Your task to perform on an android device: uninstall "Life360: Find Family & Friends" Image 0: 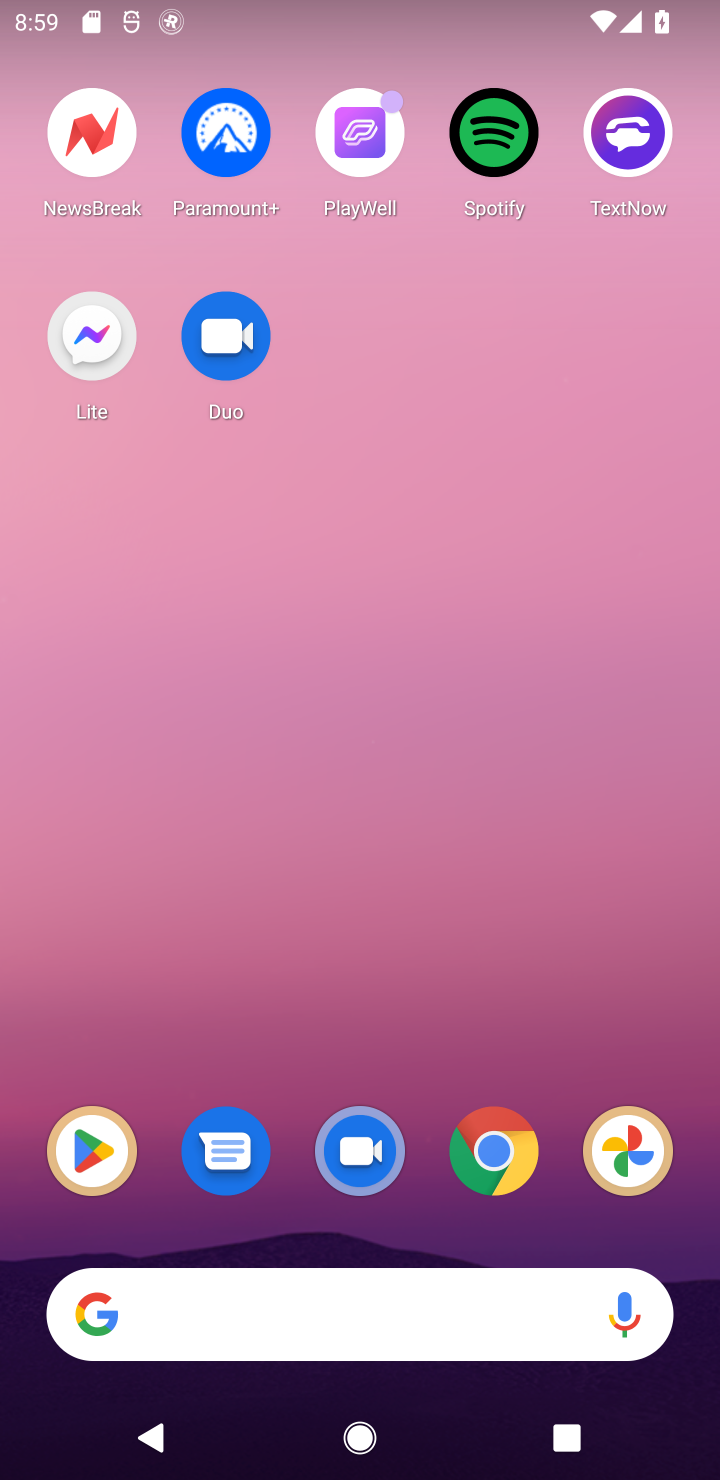
Step 0: click (88, 1157)
Your task to perform on an android device: uninstall "Life360: Find Family & Friends" Image 1: 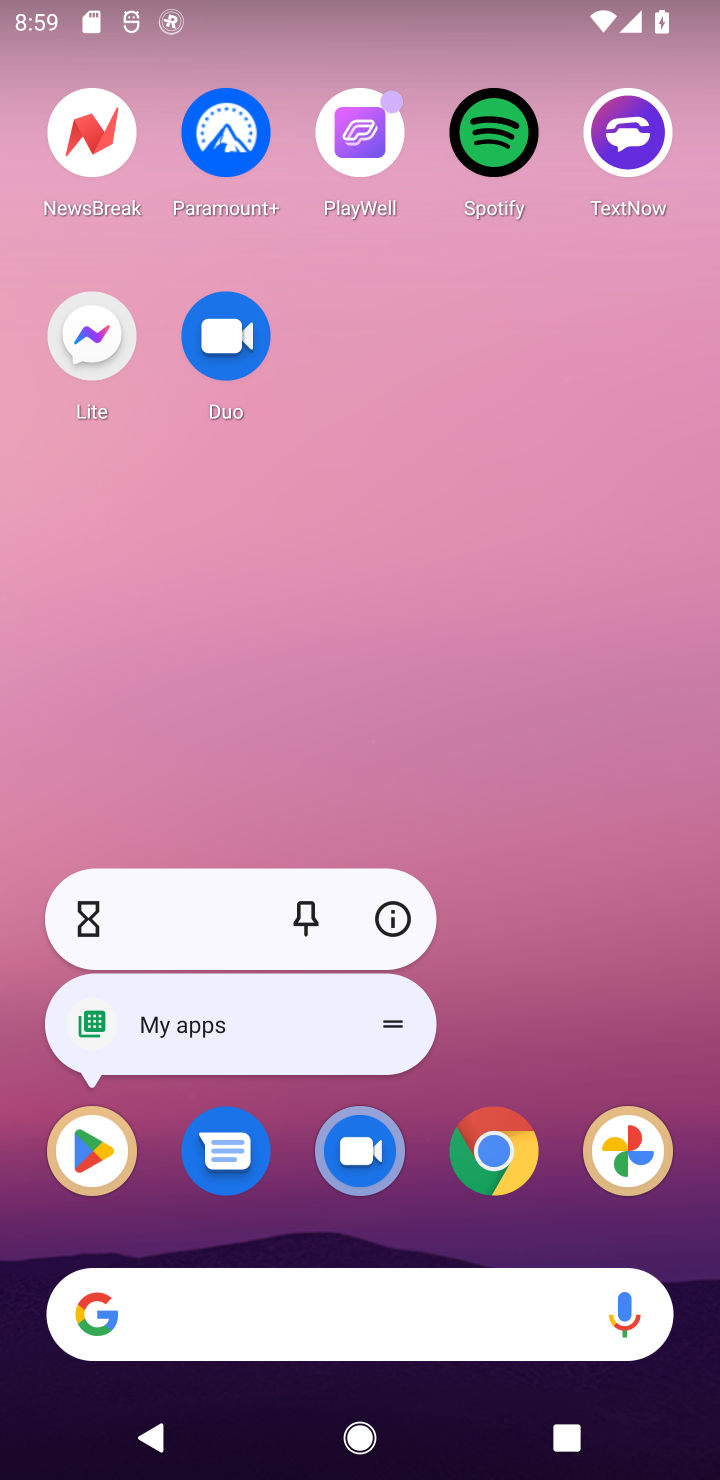
Step 1: click (97, 1172)
Your task to perform on an android device: uninstall "Life360: Find Family & Friends" Image 2: 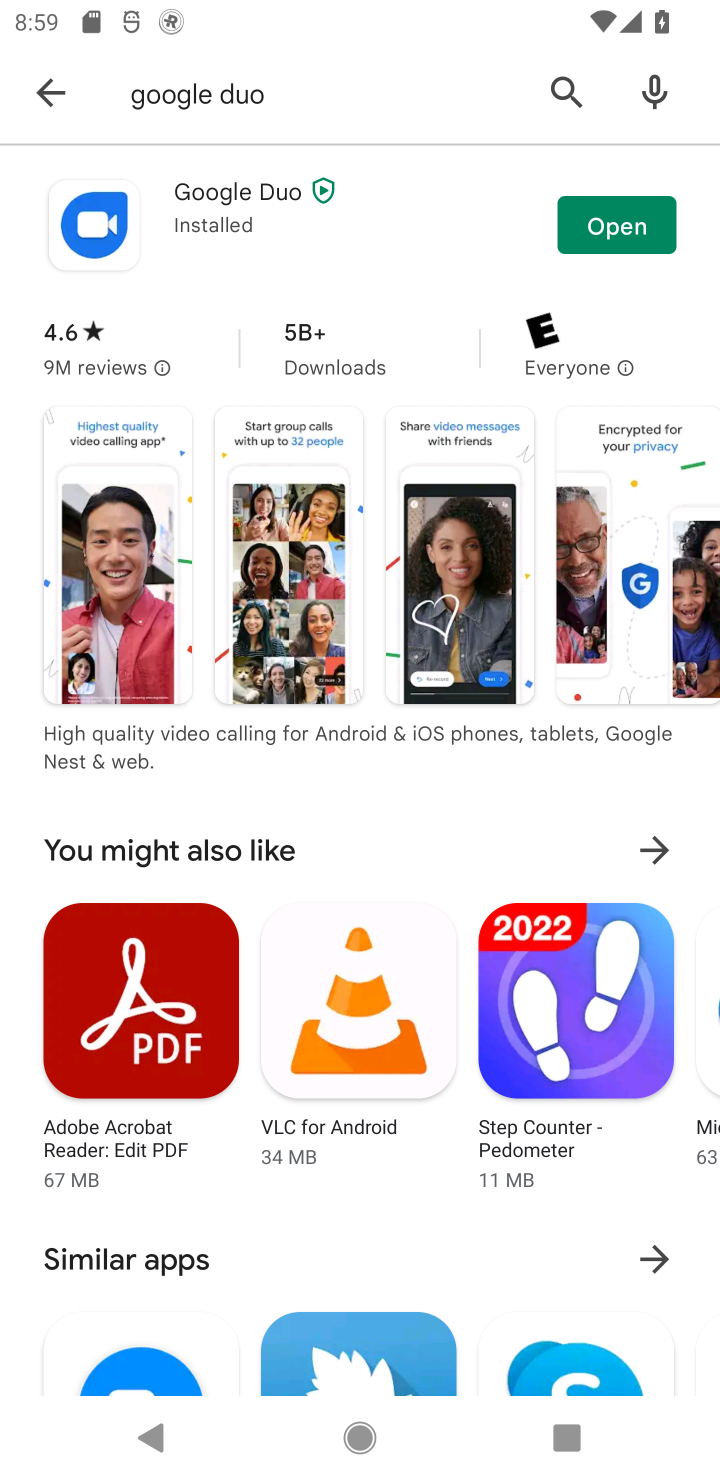
Step 2: click (561, 102)
Your task to perform on an android device: uninstall "Life360: Find Family & Friends" Image 3: 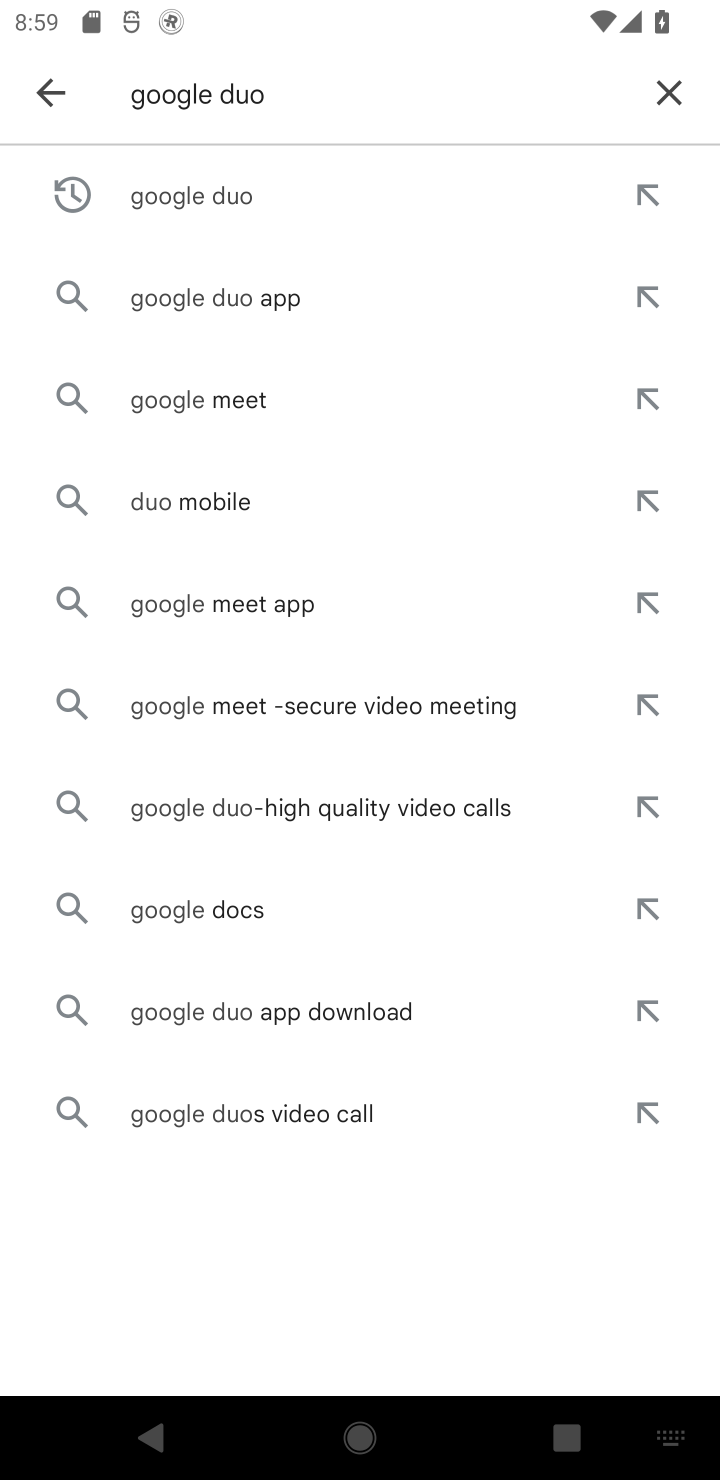
Step 3: click (648, 82)
Your task to perform on an android device: uninstall "Life360: Find Family & Friends" Image 4: 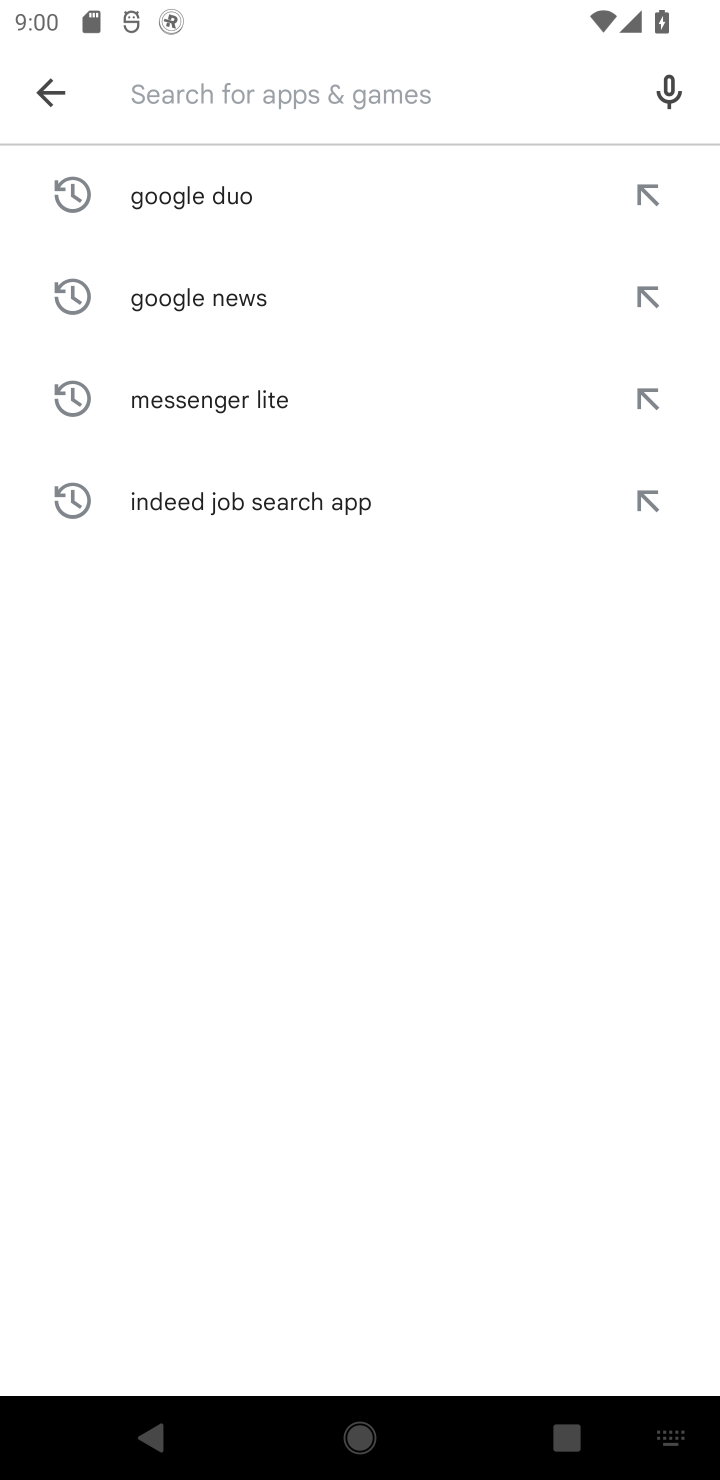
Step 4: type "Life360: Find Family & Friends"
Your task to perform on an android device: uninstall "Life360: Find Family & Friends" Image 5: 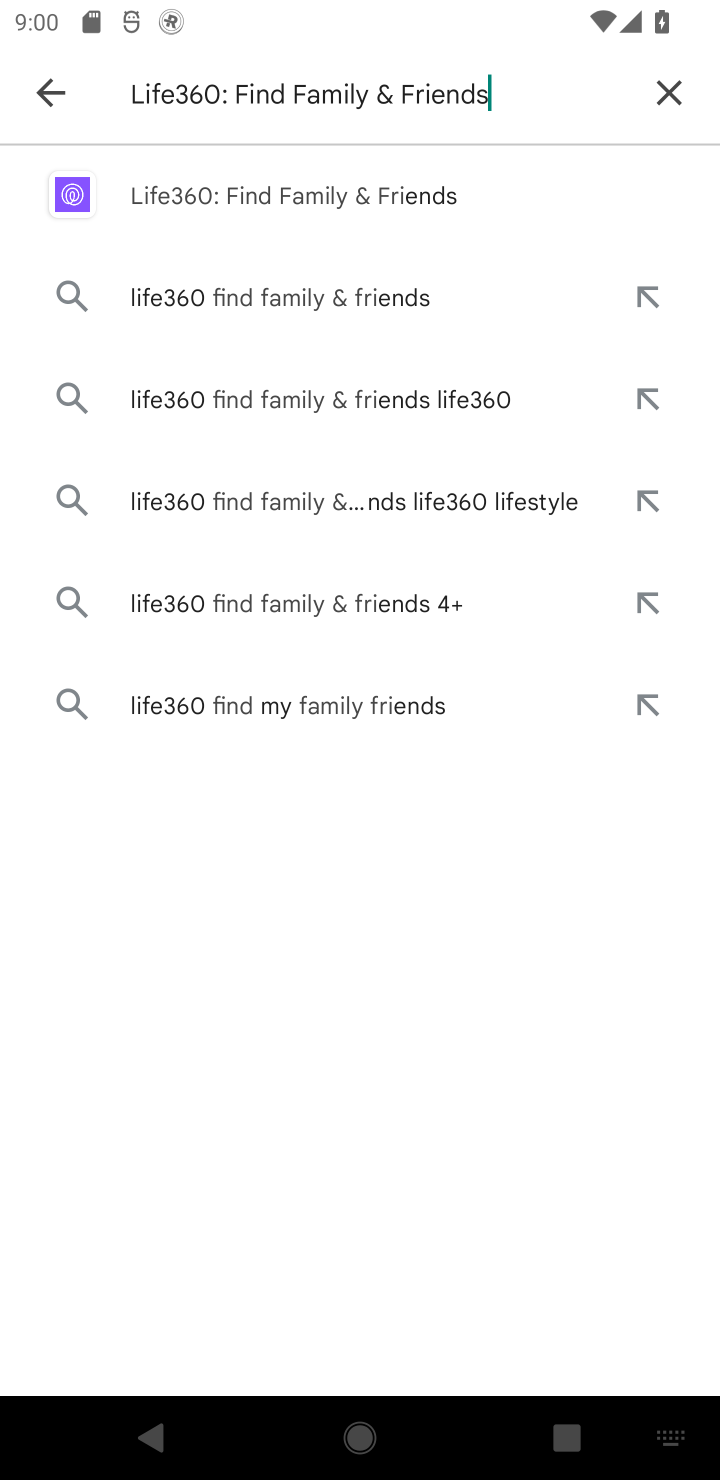
Step 5: type ""
Your task to perform on an android device: uninstall "Life360: Find Family & Friends" Image 6: 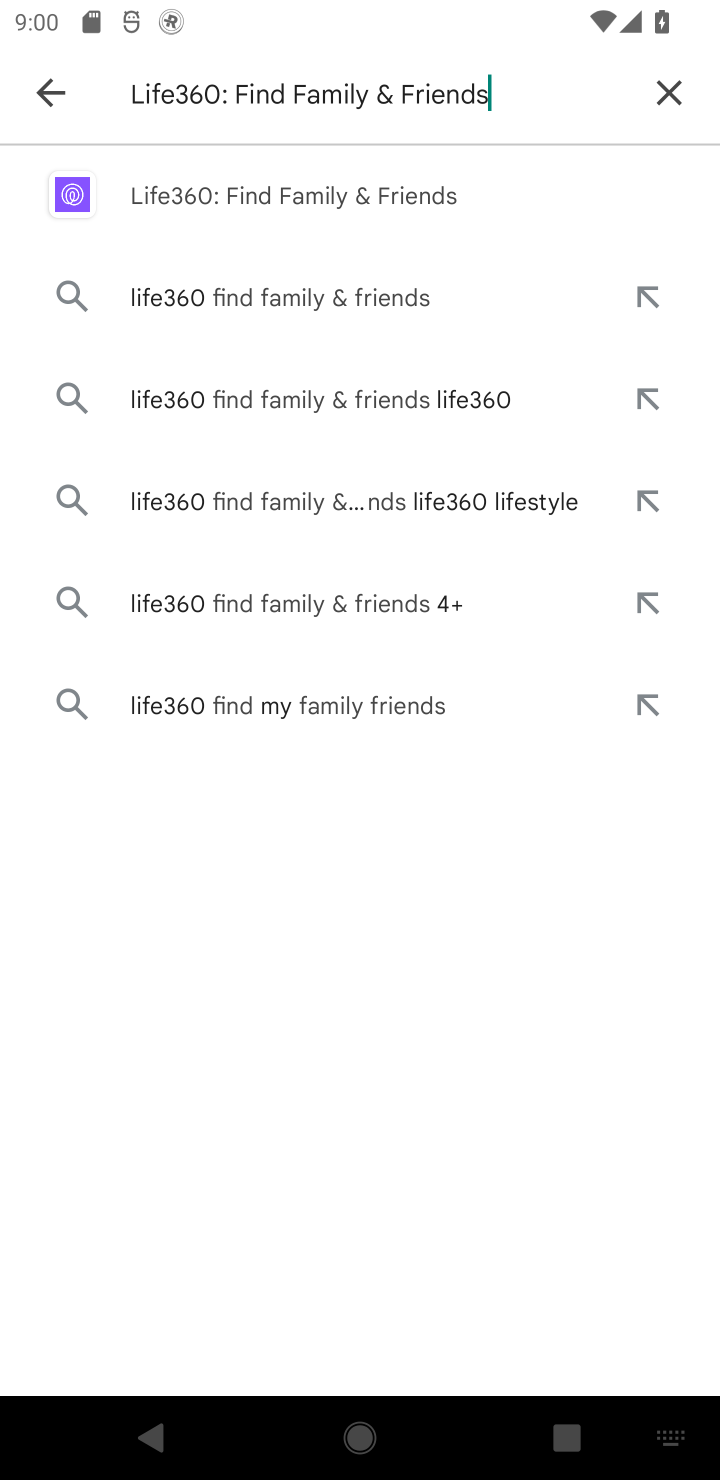
Step 6: click (436, 184)
Your task to perform on an android device: uninstall "Life360: Find Family & Friends" Image 7: 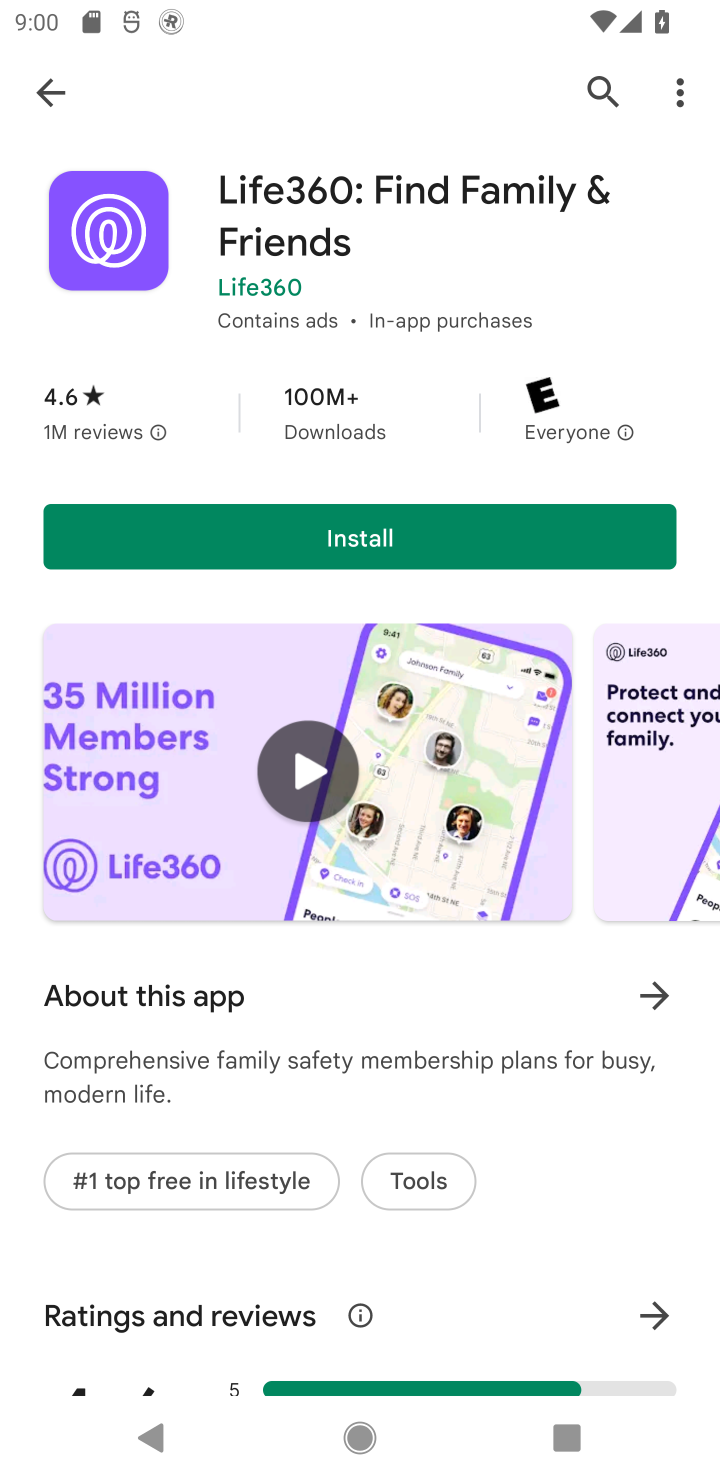
Step 7: task complete